Your task to perform on an android device: Turn on the flashlight Image 0: 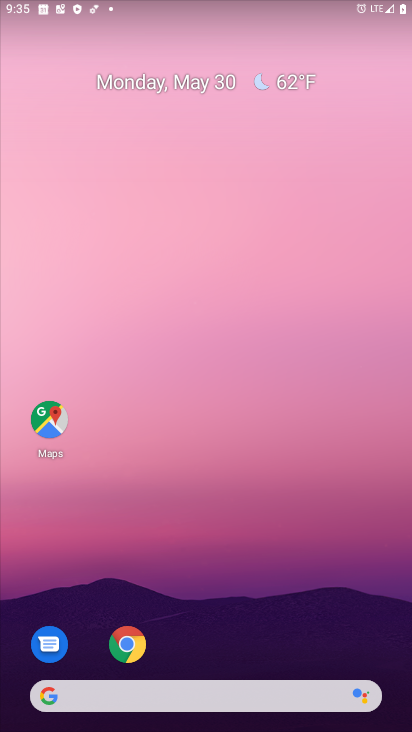
Step 0: drag from (229, 9) to (266, 569)
Your task to perform on an android device: Turn on the flashlight Image 1: 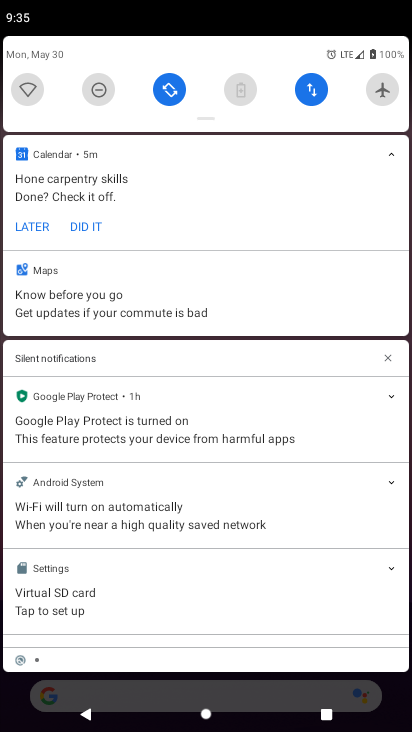
Step 1: drag from (204, 115) to (199, 418)
Your task to perform on an android device: Turn on the flashlight Image 2: 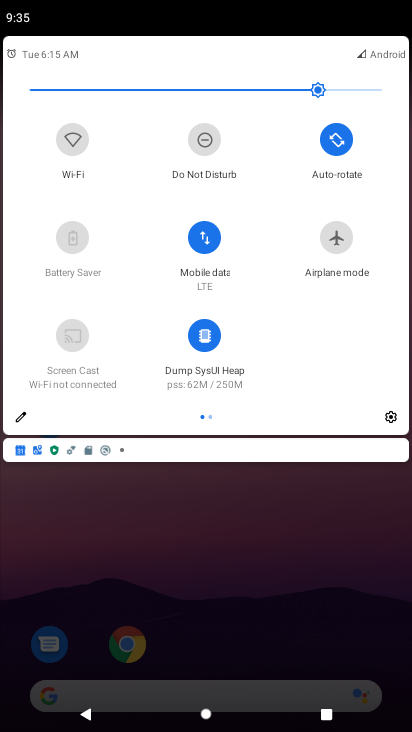
Step 2: click (18, 414)
Your task to perform on an android device: Turn on the flashlight Image 3: 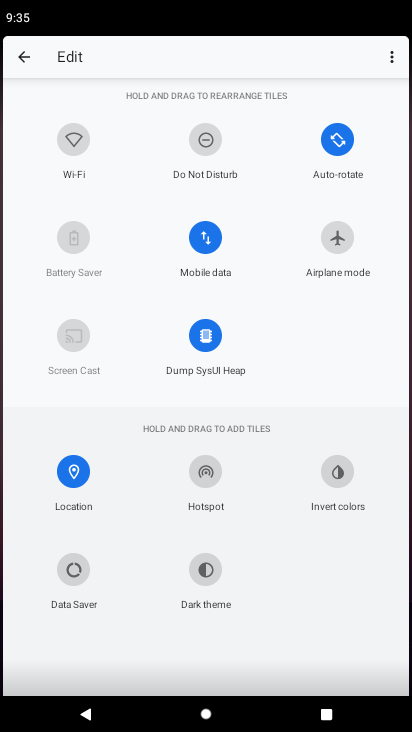
Step 3: task complete